Your task to perform on an android device: remove spam from my inbox in the gmail app Image 0: 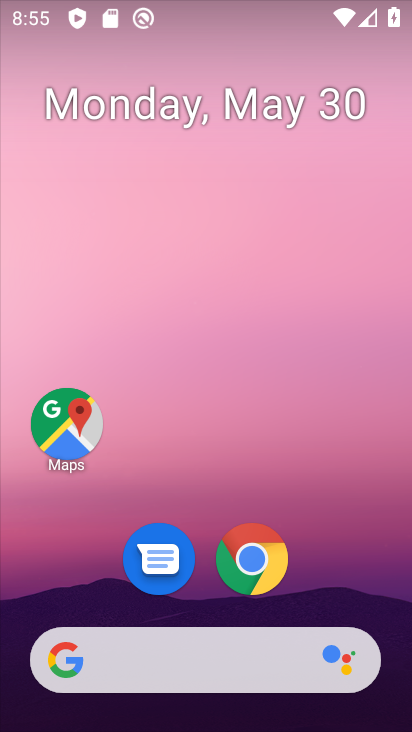
Step 0: drag from (349, 545) to (291, 150)
Your task to perform on an android device: remove spam from my inbox in the gmail app Image 1: 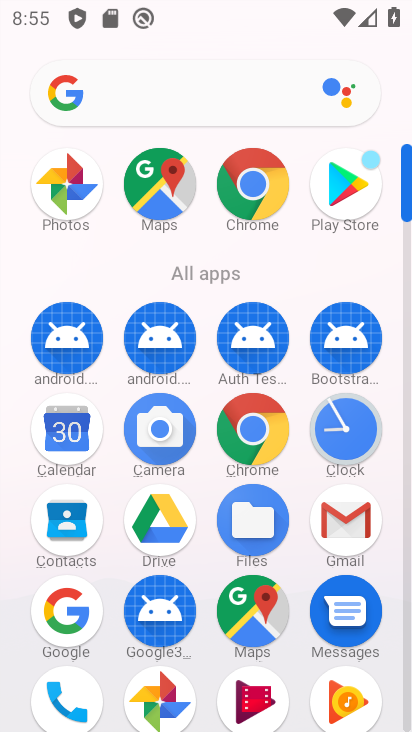
Step 1: click (337, 527)
Your task to perform on an android device: remove spam from my inbox in the gmail app Image 2: 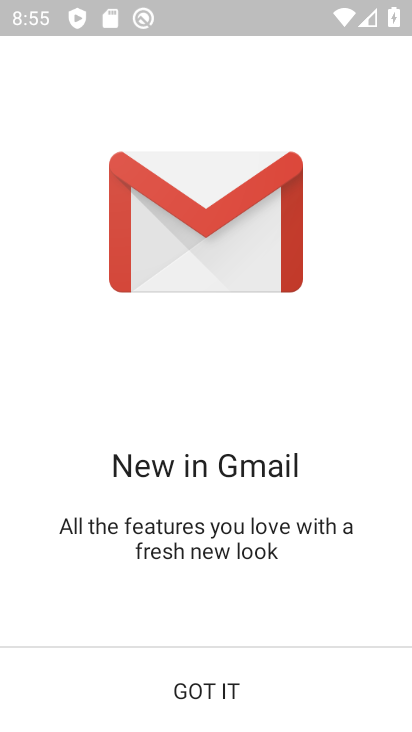
Step 2: click (266, 714)
Your task to perform on an android device: remove spam from my inbox in the gmail app Image 3: 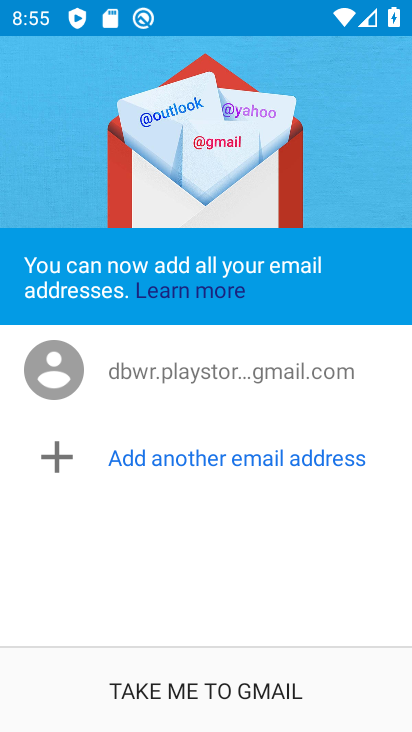
Step 3: click (279, 680)
Your task to perform on an android device: remove spam from my inbox in the gmail app Image 4: 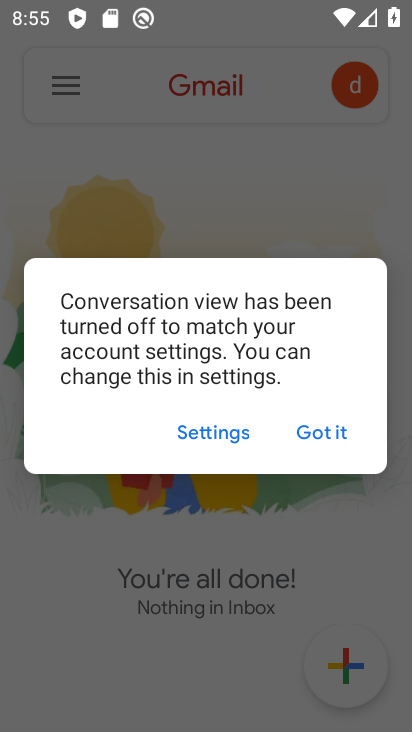
Step 4: click (340, 437)
Your task to perform on an android device: remove spam from my inbox in the gmail app Image 5: 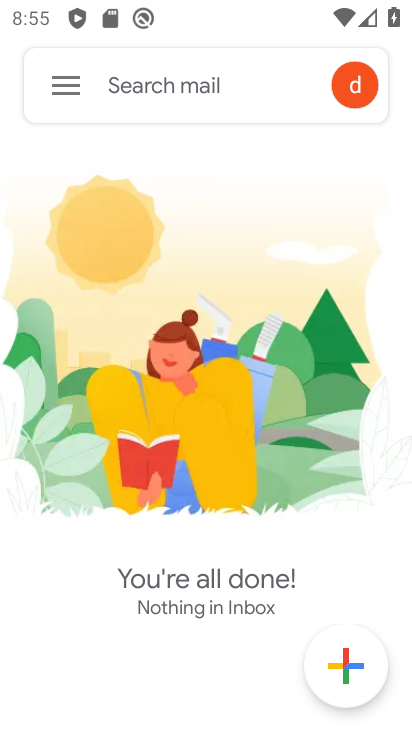
Step 5: click (66, 85)
Your task to perform on an android device: remove spam from my inbox in the gmail app Image 6: 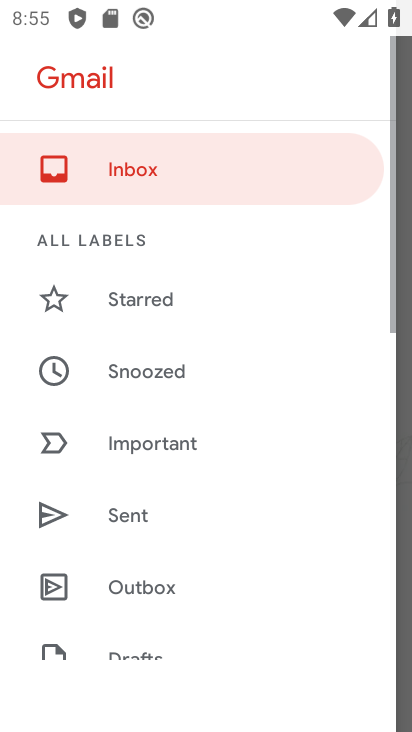
Step 6: drag from (209, 517) to (316, 162)
Your task to perform on an android device: remove spam from my inbox in the gmail app Image 7: 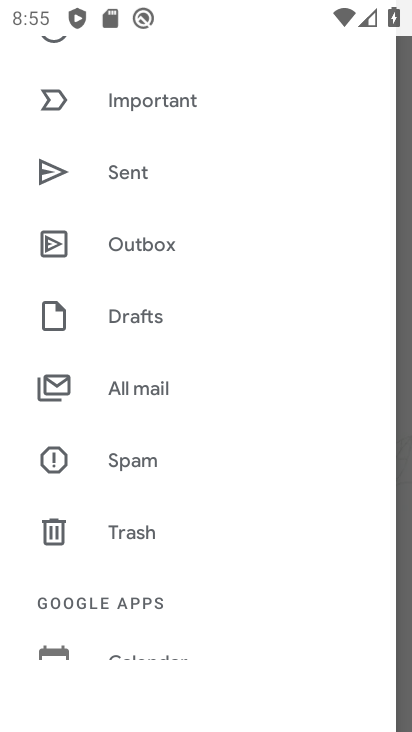
Step 7: drag from (142, 237) to (163, 634)
Your task to perform on an android device: remove spam from my inbox in the gmail app Image 8: 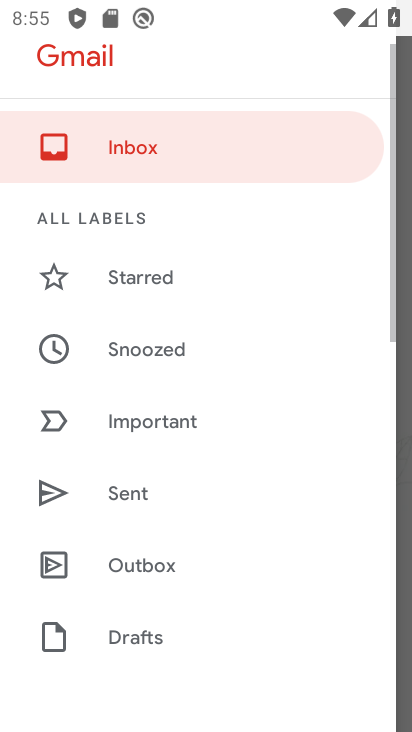
Step 8: click (144, 177)
Your task to perform on an android device: remove spam from my inbox in the gmail app Image 9: 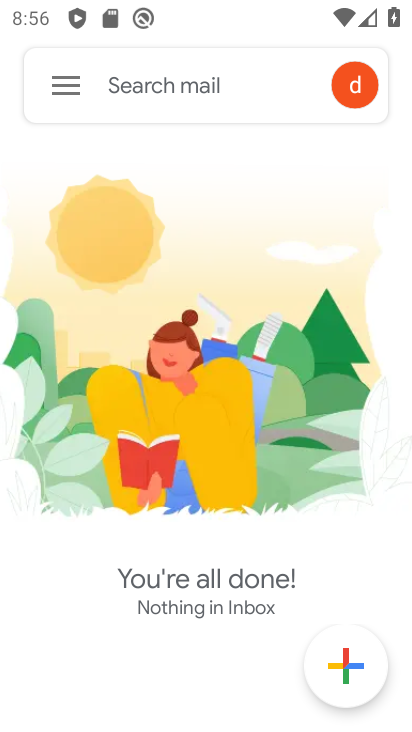
Step 9: task complete